Your task to perform on an android device: add a label to a message in the gmail app Image 0: 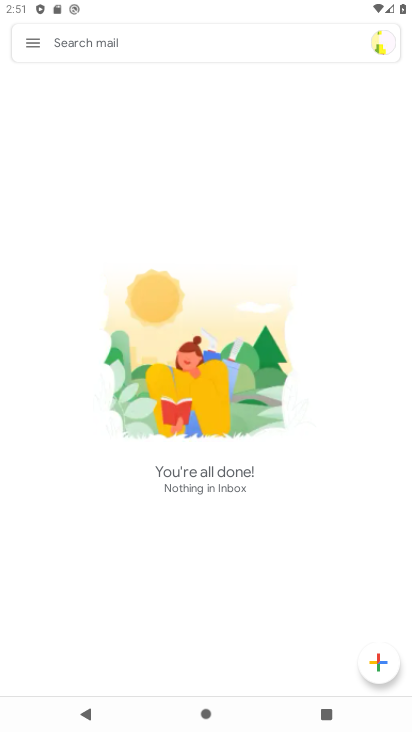
Step 0: press home button
Your task to perform on an android device: add a label to a message in the gmail app Image 1: 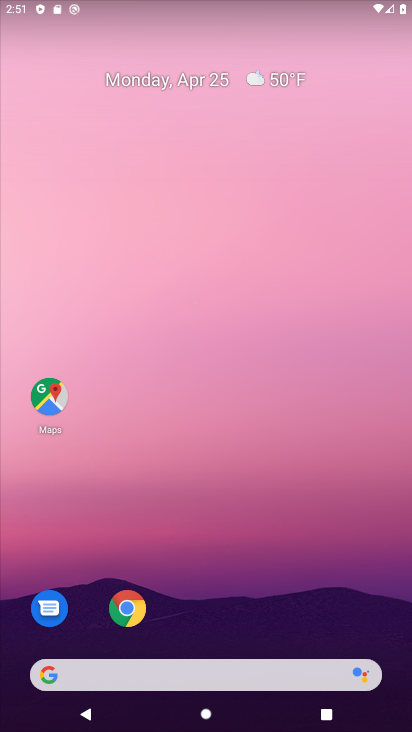
Step 1: drag from (210, 493) to (250, 190)
Your task to perform on an android device: add a label to a message in the gmail app Image 2: 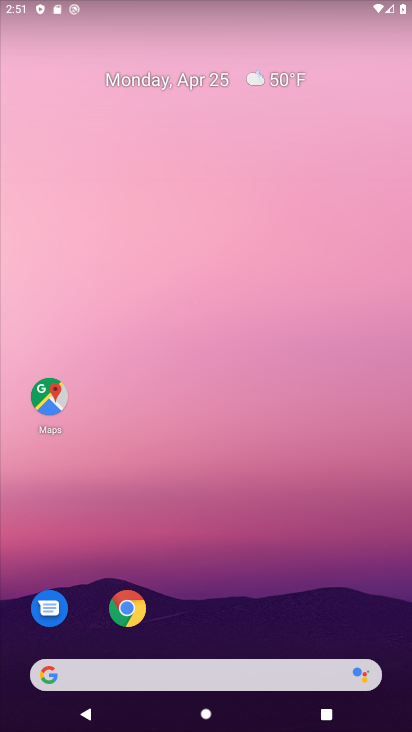
Step 2: drag from (212, 631) to (255, 145)
Your task to perform on an android device: add a label to a message in the gmail app Image 3: 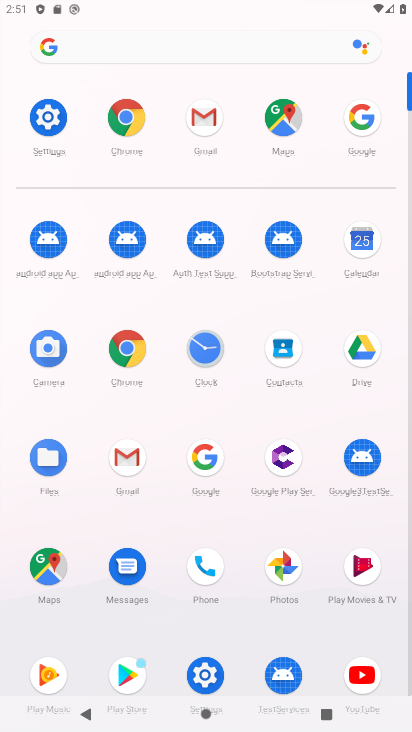
Step 3: click (197, 121)
Your task to perform on an android device: add a label to a message in the gmail app Image 4: 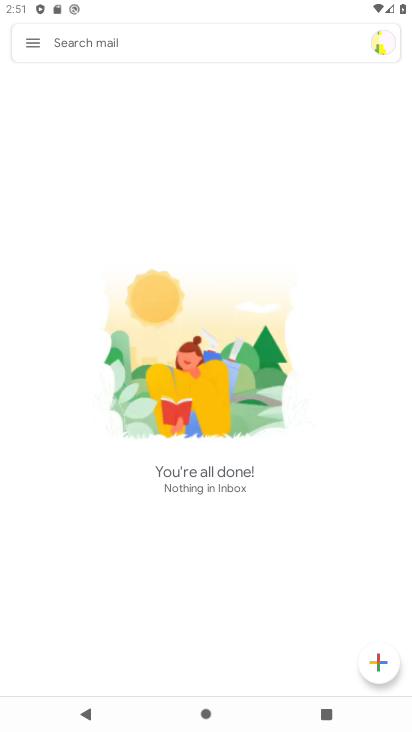
Step 4: click (31, 44)
Your task to perform on an android device: add a label to a message in the gmail app Image 5: 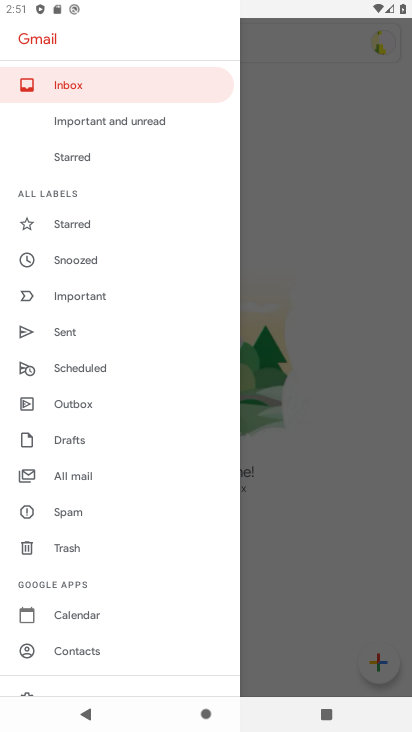
Step 5: click (99, 483)
Your task to perform on an android device: add a label to a message in the gmail app Image 6: 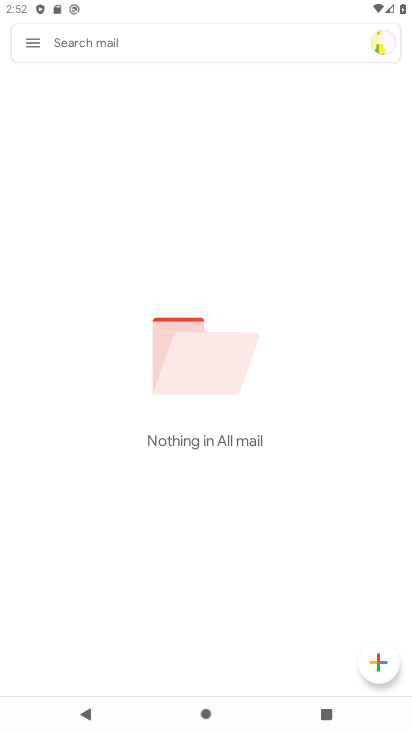
Step 6: task complete